Your task to perform on an android device: change keyboard looks Image 0: 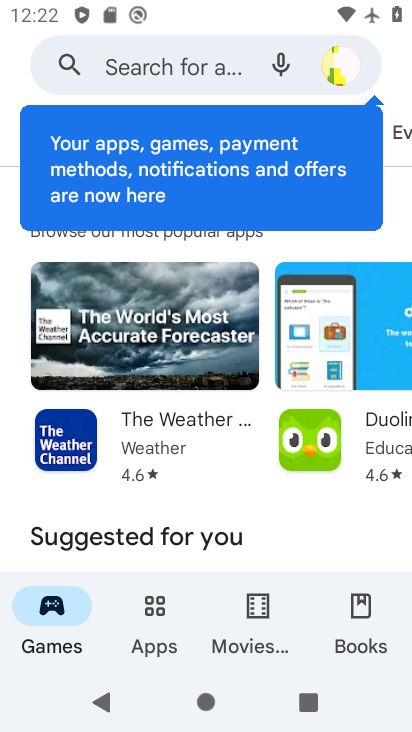
Step 0: press home button
Your task to perform on an android device: change keyboard looks Image 1: 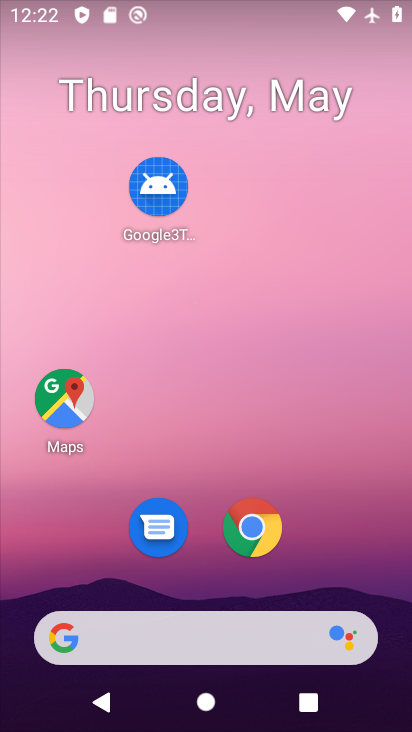
Step 1: drag from (208, 571) to (265, 184)
Your task to perform on an android device: change keyboard looks Image 2: 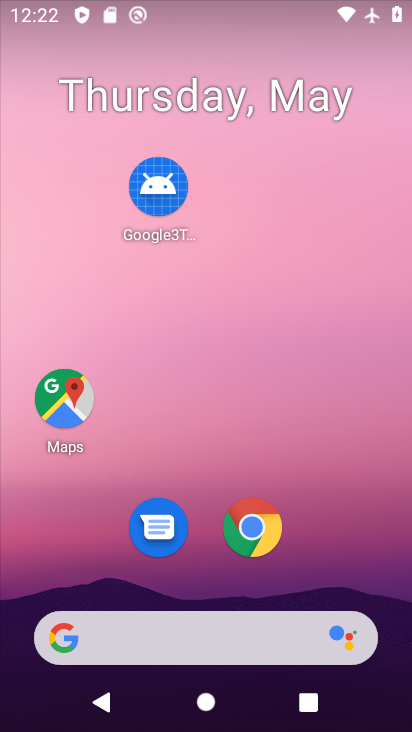
Step 2: drag from (316, 574) to (362, 144)
Your task to perform on an android device: change keyboard looks Image 3: 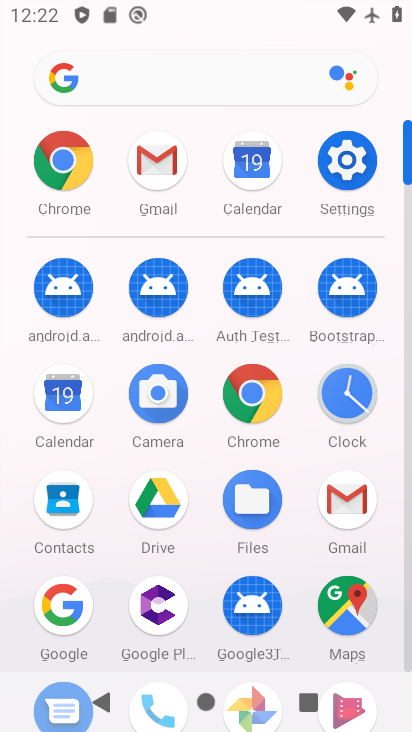
Step 3: click (345, 149)
Your task to perform on an android device: change keyboard looks Image 4: 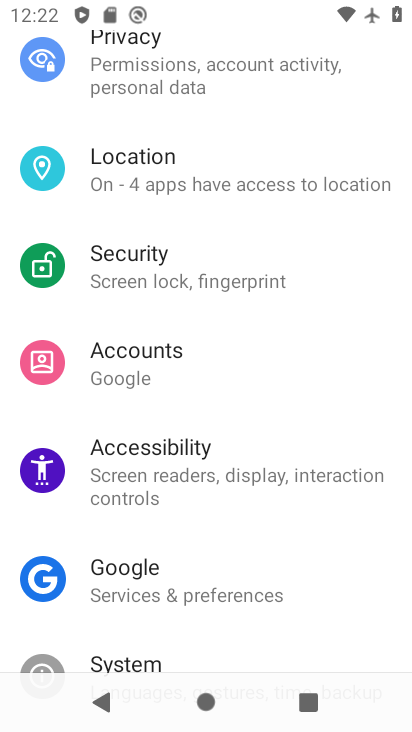
Step 4: click (192, 658)
Your task to perform on an android device: change keyboard looks Image 5: 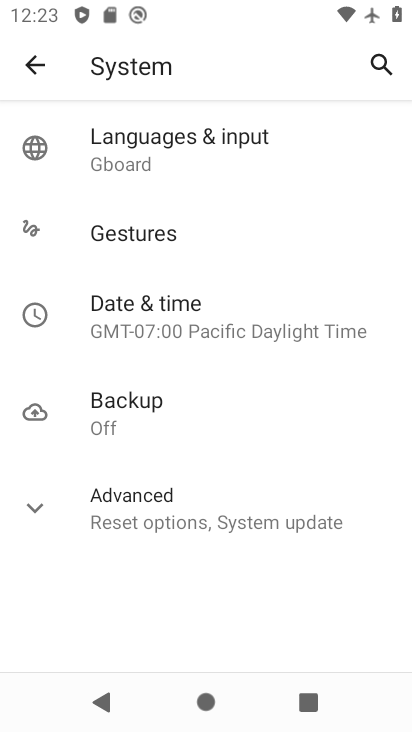
Step 5: click (38, 499)
Your task to perform on an android device: change keyboard looks Image 6: 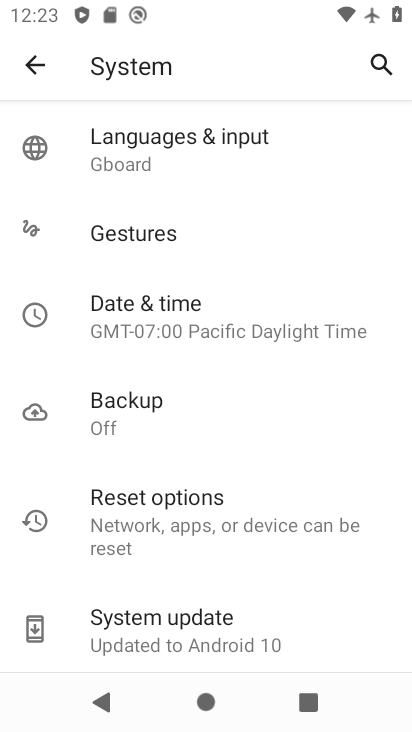
Step 6: click (67, 614)
Your task to perform on an android device: change keyboard looks Image 7: 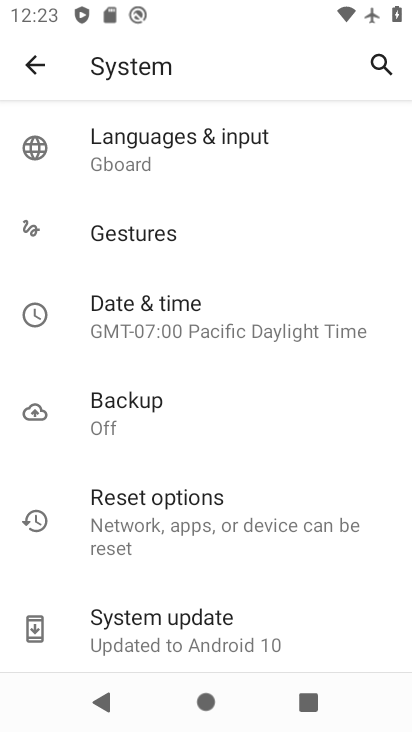
Step 7: click (150, 151)
Your task to perform on an android device: change keyboard looks Image 8: 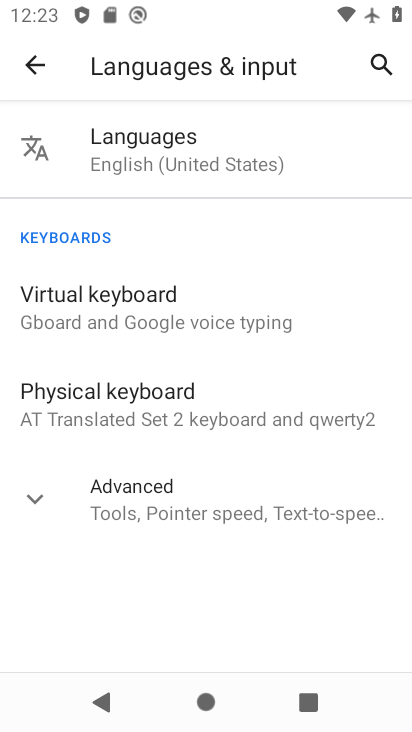
Step 8: click (160, 304)
Your task to perform on an android device: change keyboard looks Image 9: 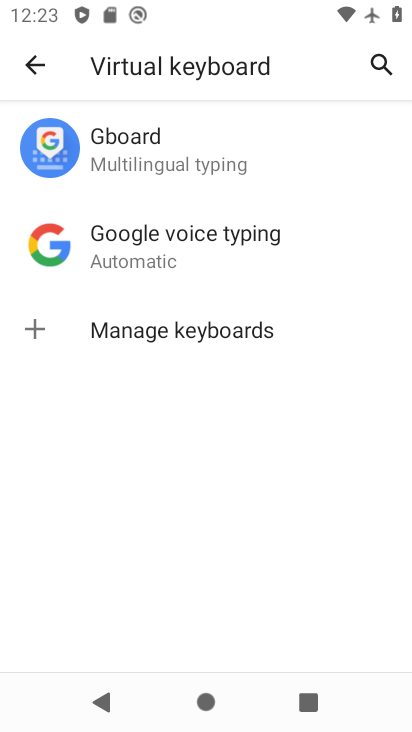
Step 9: click (155, 144)
Your task to perform on an android device: change keyboard looks Image 10: 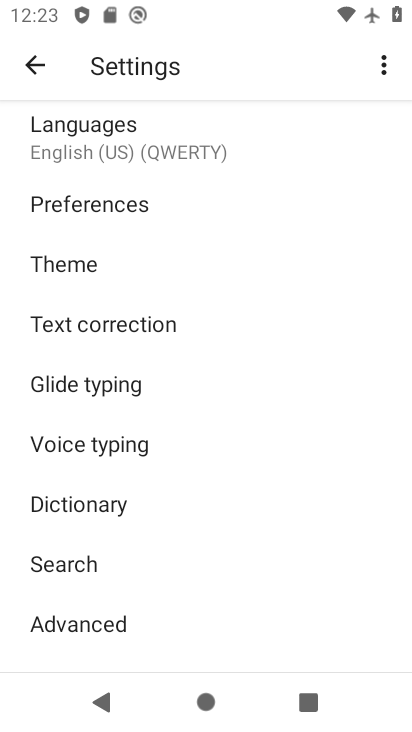
Step 10: click (107, 260)
Your task to perform on an android device: change keyboard looks Image 11: 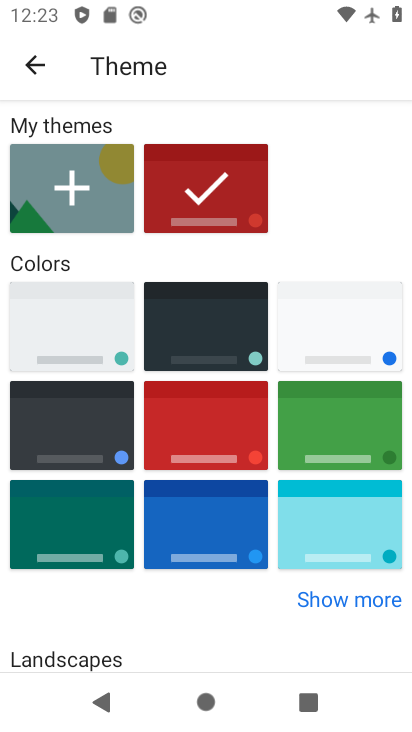
Step 11: click (385, 443)
Your task to perform on an android device: change keyboard looks Image 12: 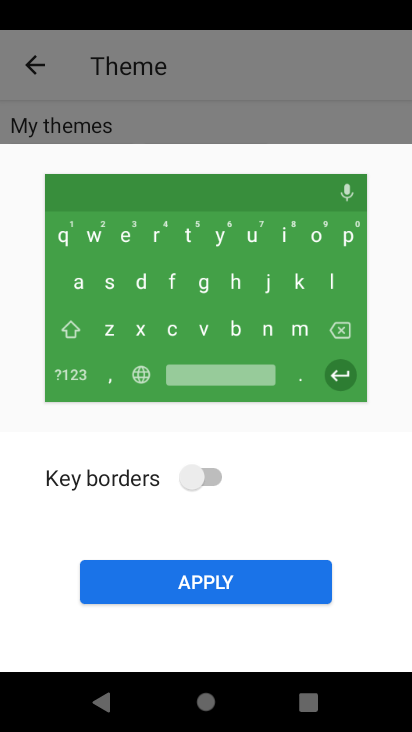
Step 12: click (259, 578)
Your task to perform on an android device: change keyboard looks Image 13: 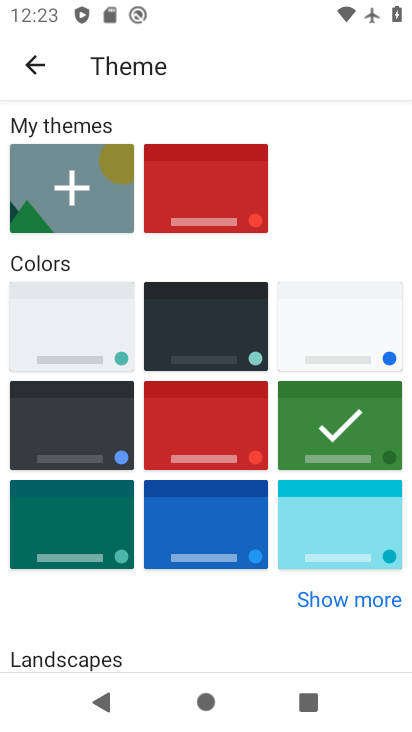
Step 13: task complete